Your task to perform on an android device: Open Google Chrome and open the bookmarks view Image 0: 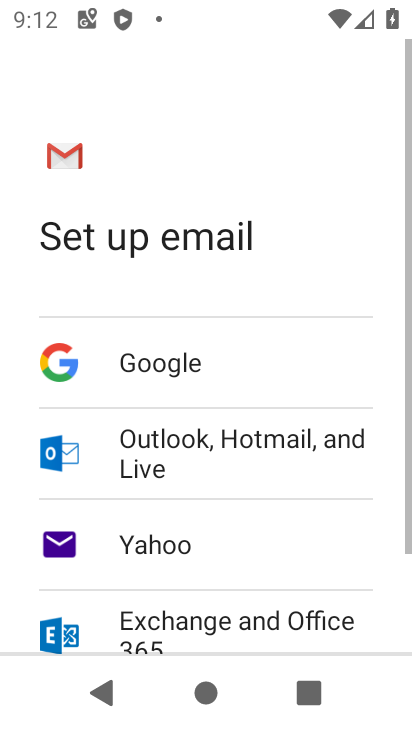
Step 0: press home button
Your task to perform on an android device: Open Google Chrome and open the bookmarks view Image 1: 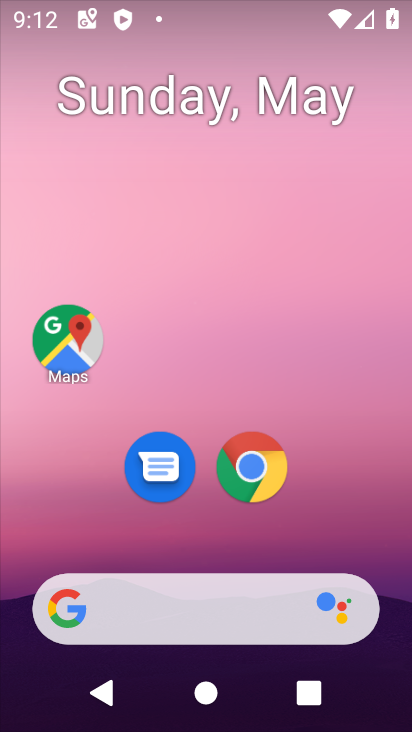
Step 1: click (273, 474)
Your task to perform on an android device: Open Google Chrome and open the bookmarks view Image 2: 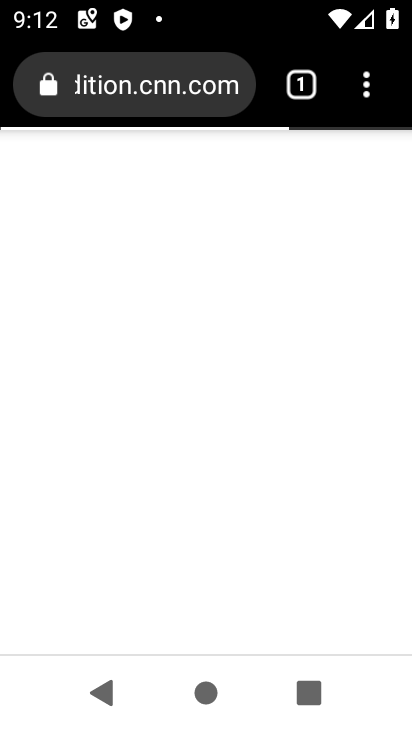
Step 2: click (369, 89)
Your task to perform on an android device: Open Google Chrome and open the bookmarks view Image 3: 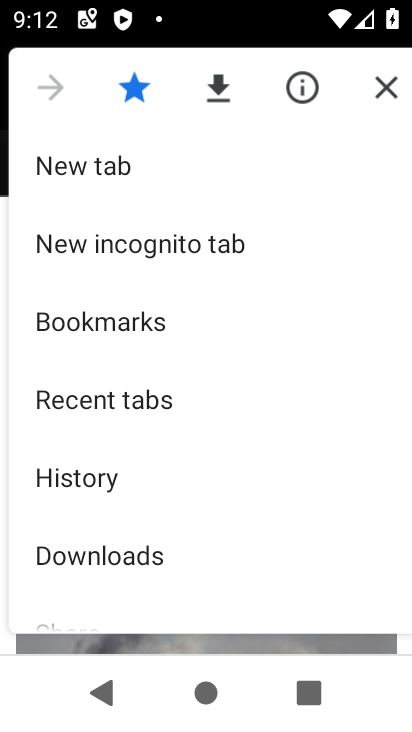
Step 3: click (172, 334)
Your task to perform on an android device: Open Google Chrome and open the bookmarks view Image 4: 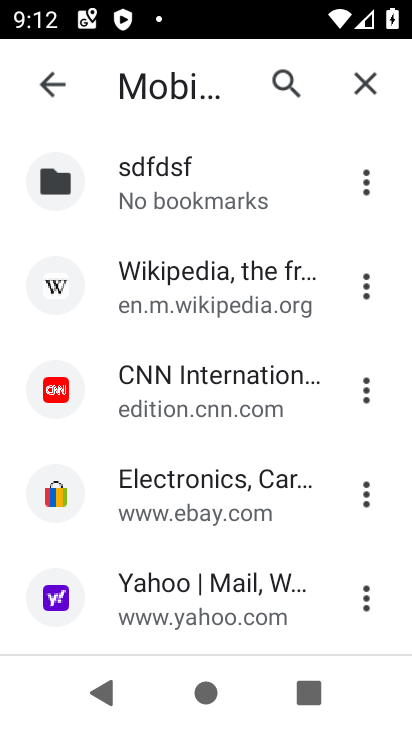
Step 4: task complete